Your task to perform on an android device: Open settings on Google Maps Image 0: 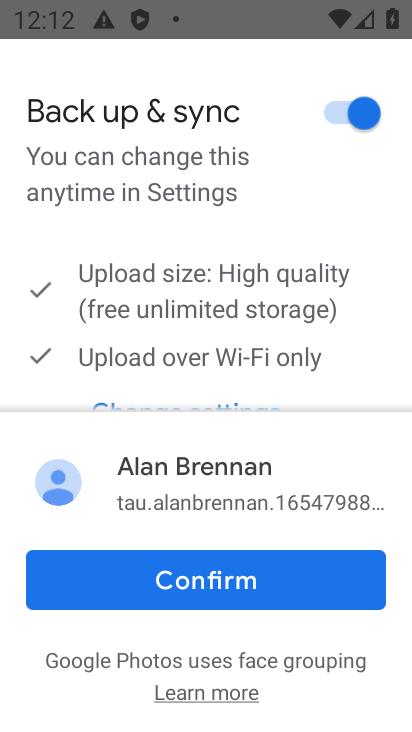
Step 0: press home button
Your task to perform on an android device: Open settings on Google Maps Image 1: 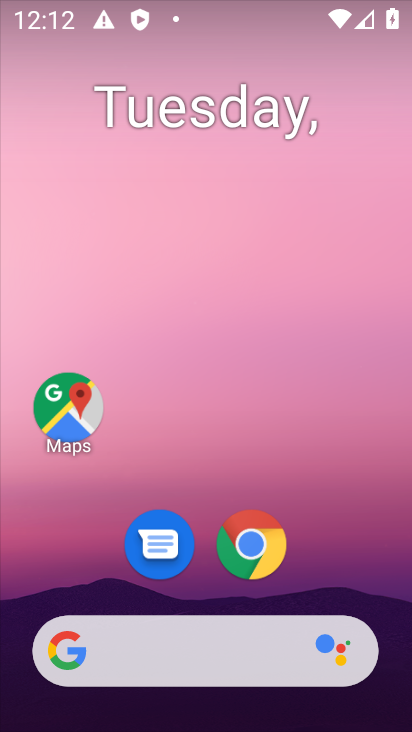
Step 1: drag from (343, 523) to (280, 30)
Your task to perform on an android device: Open settings on Google Maps Image 2: 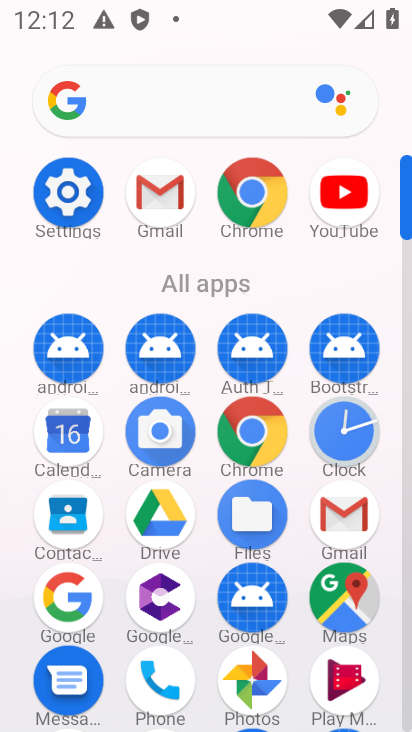
Step 2: click (343, 592)
Your task to perform on an android device: Open settings on Google Maps Image 3: 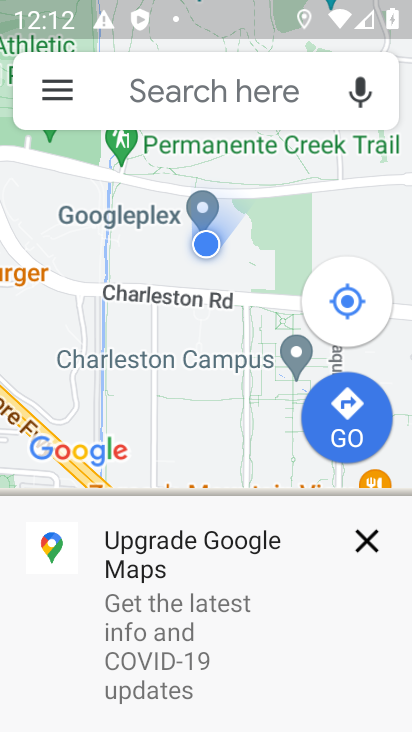
Step 3: click (58, 96)
Your task to perform on an android device: Open settings on Google Maps Image 4: 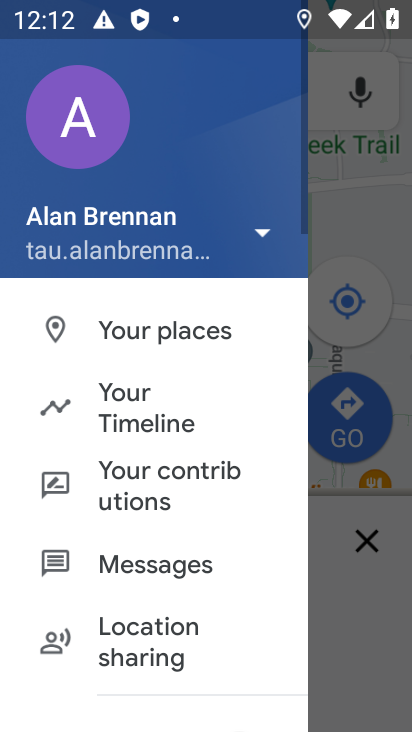
Step 4: drag from (129, 594) to (212, 60)
Your task to perform on an android device: Open settings on Google Maps Image 5: 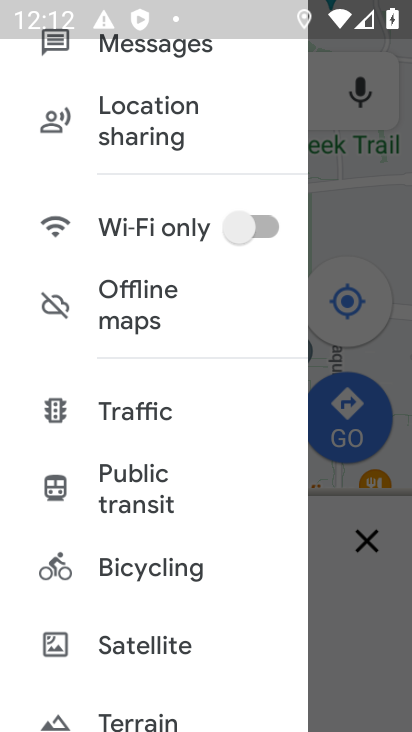
Step 5: drag from (139, 653) to (228, 203)
Your task to perform on an android device: Open settings on Google Maps Image 6: 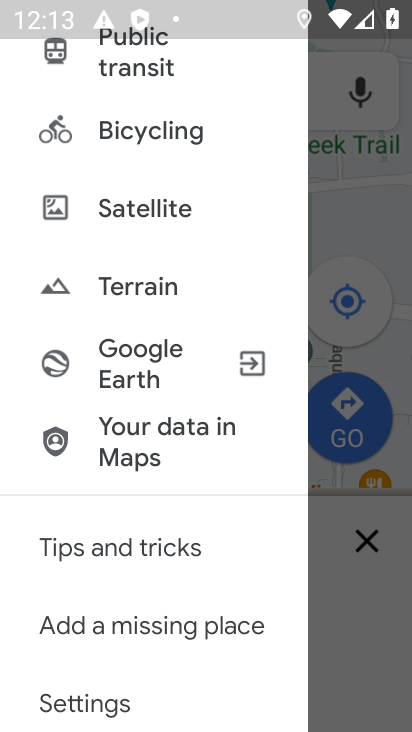
Step 6: click (84, 705)
Your task to perform on an android device: Open settings on Google Maps Image 7: 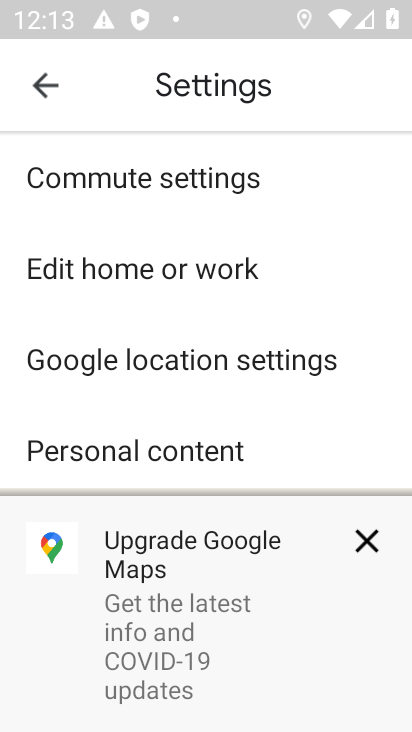
Step 7: task complete